Your task to perform on an android device: turn off sleep mode Image 0: 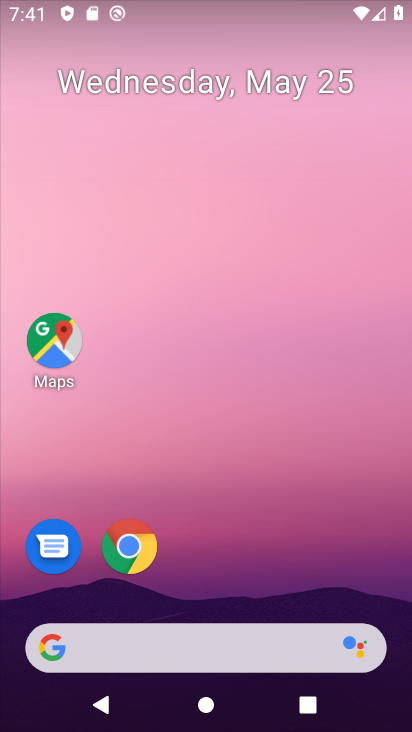
Step 0: click (176, 566)
Your task to perform on an android device: turn off sleep mode Image 1: 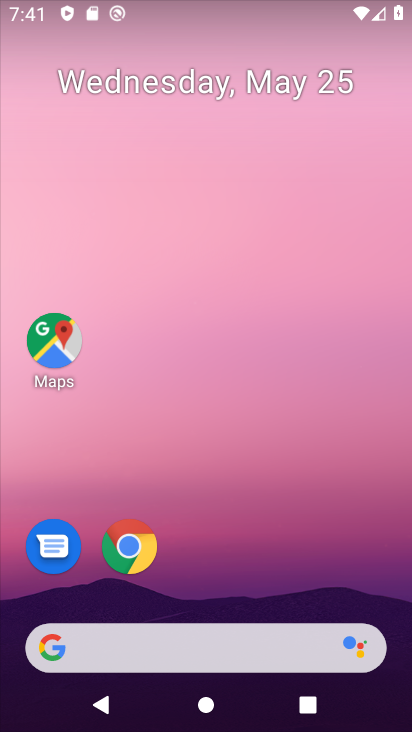
Step 1: click (191, 573)
Your task to perform on an android device: turn off sleep mode Image 2: 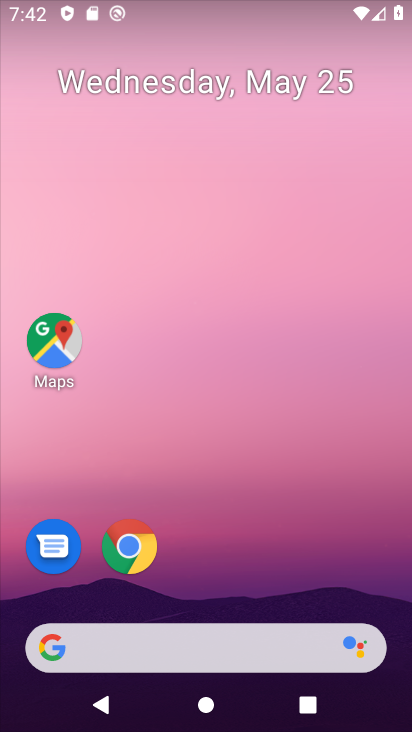
Step 2: task complete